Your task to perform on an android device: Go to sound settings Image 0: 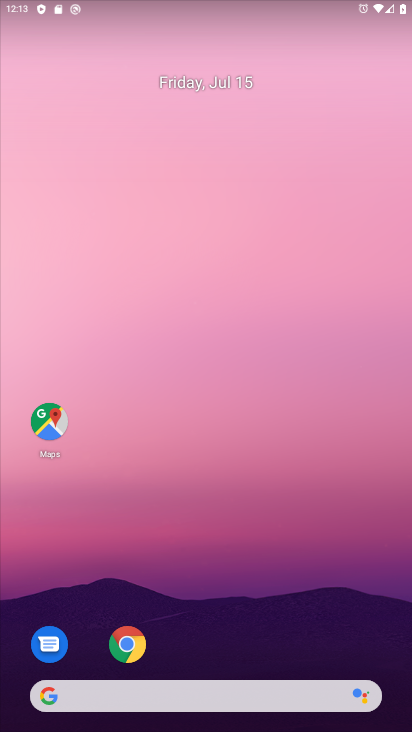
Step 0: drag from (214, 728) to (227, 327)
Your task to perform on an android device: Go to sound settings Image 1: 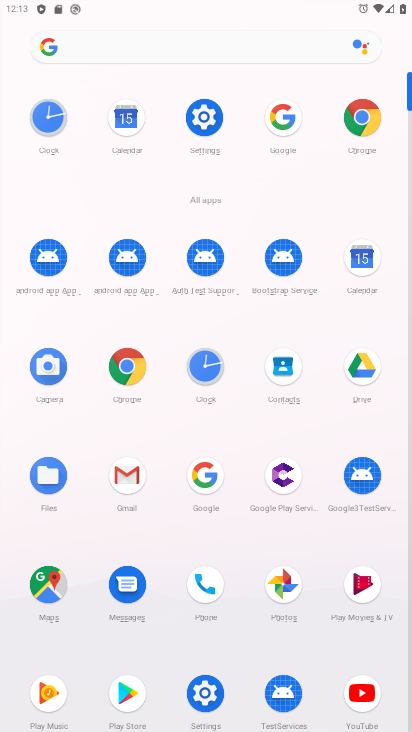
Step 1: click (210, 126)
Your task to perform on an android device: Go to sound settings Image 2: 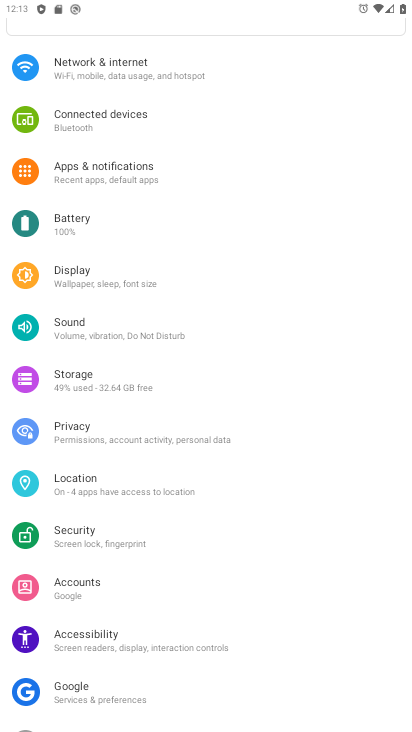
Step 2: click (71, 324)
Your task to perform on an android device: Go to sound settings Image 3: 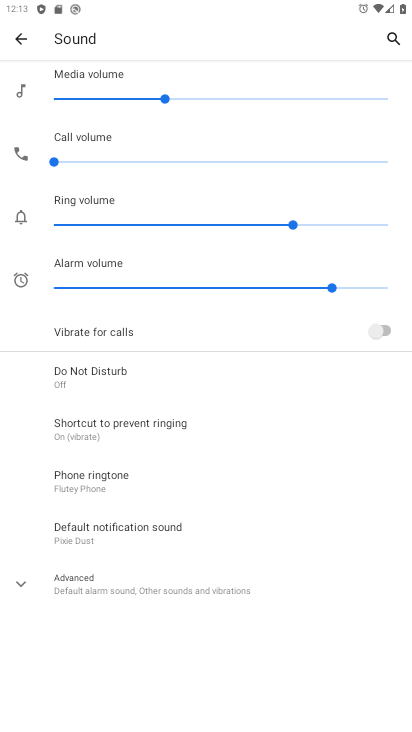
Step 3: task complete